Your task to perform on an android device: allow cookies in the chrome app Image 0: 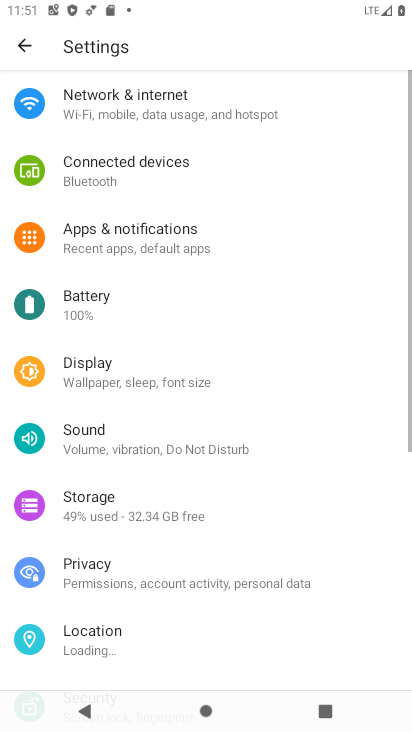
Step 0: press home button
Your task to perform on an android device: allow cookies in the chrome app Image 1: 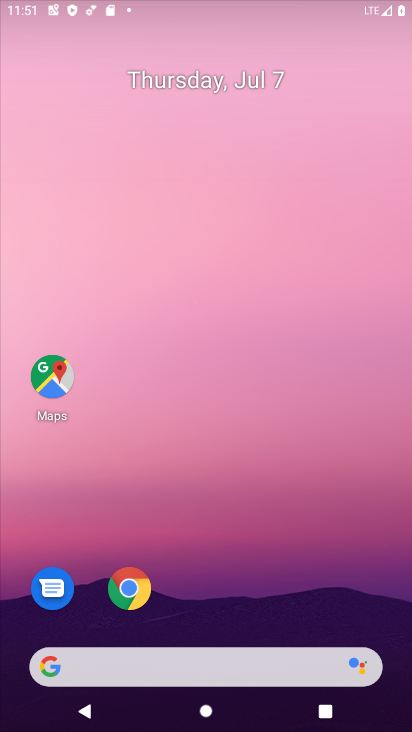
Step 1: drag from (214, 620) to (267, 96)
Your task to perform on an android device: allow cookies in the chrome app Image 2: 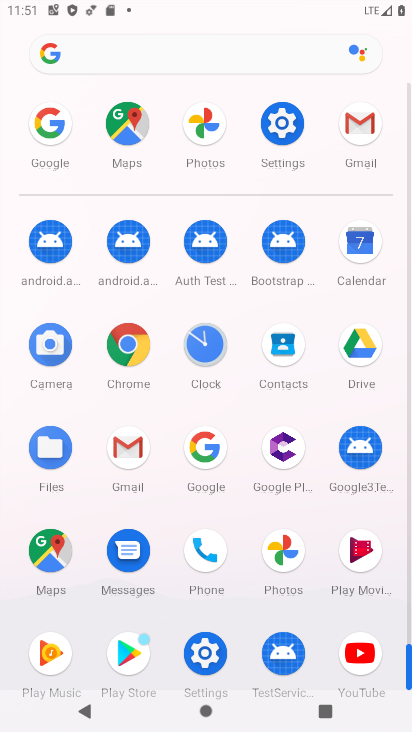
Step 2: click (118, 335)
Your task to perform on an android device: allow cookies in the chrome app Image 3: 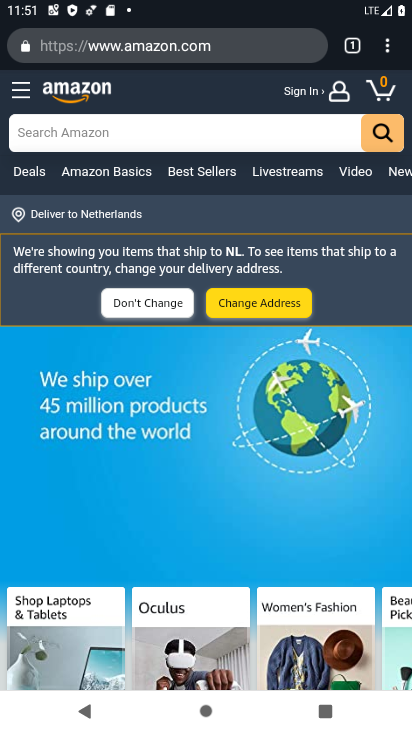
Step 3: click (383, 44)
Your task to perform on an android device: allow cookies in the chrome app Image 4: 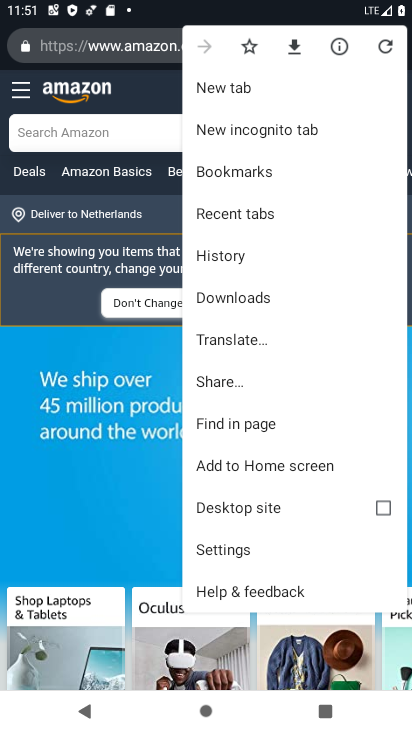
Step 4: click (242, 550)
Your task to perform on an android device: allow cookies in the chrome app Image 5: 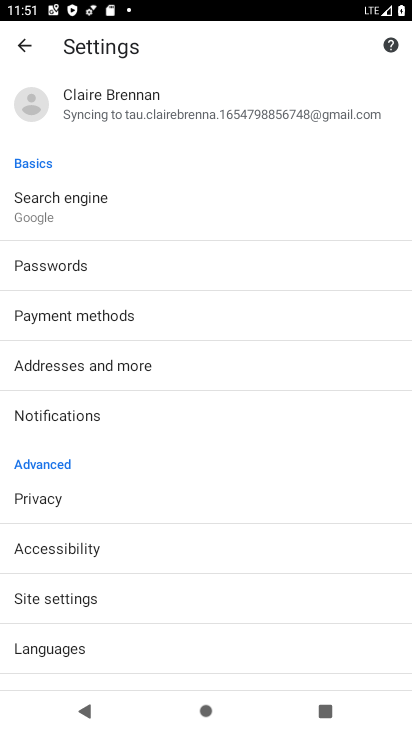
Step 5: click (86, 598)
Your task to perform on an android device: allow cookies in the chrome app Image 6: 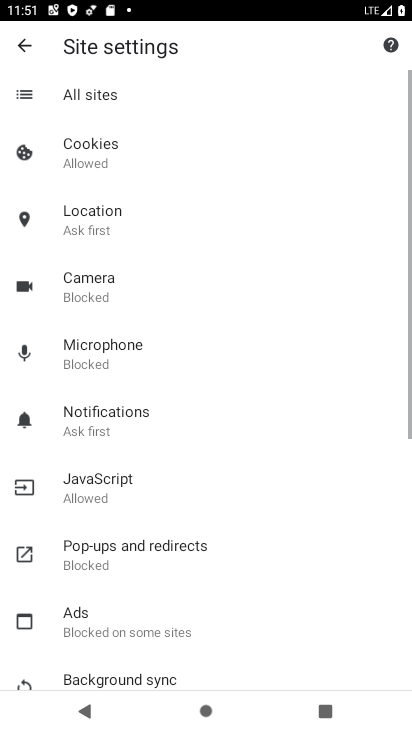
Step 6: click (192, 154)
Your task to perform on an android device: allow cookies in the chrome app Image 7: 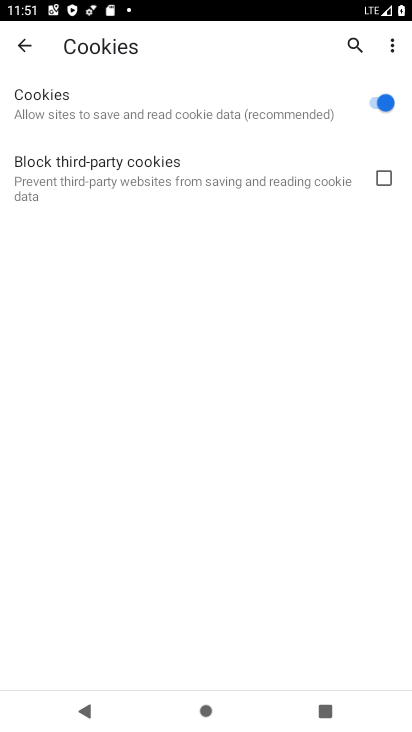
Step 7: task complete